Your task to perform on an android device: Open privacy settings Image 0: 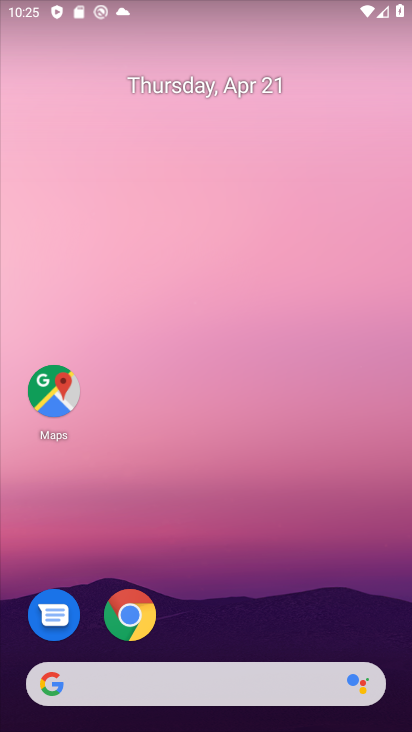
Step 0: drag from (226, 627) to (243, 132)
Your task to perform on an android device: Open privacy settings Image 1: 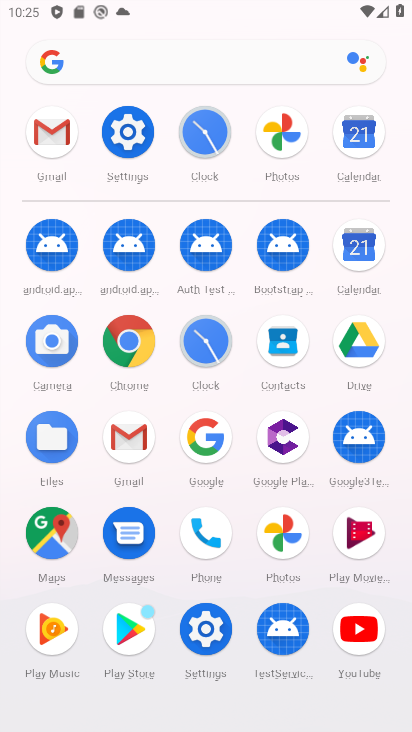
Step 1: click (207, 627)
Your task to perform on an android device: Open privacy settings Image 2: 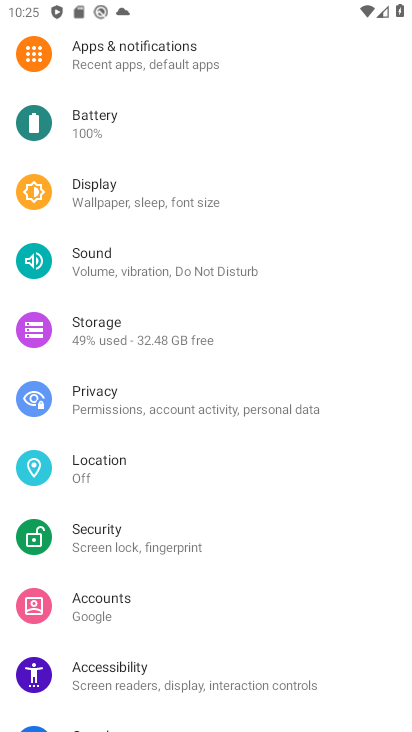
Step 2: click (130, 386)
Your task to perform on an android device: Open privacy settings Image 3: 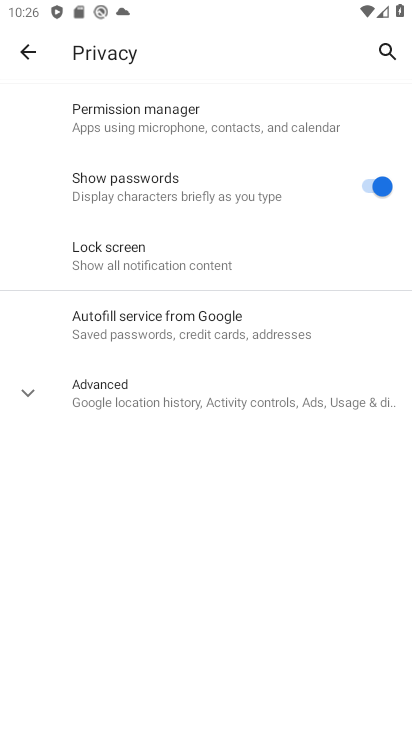
Step 3: click (36, 386)
Your task to perform on an android device: Open privacy settings Image 4: 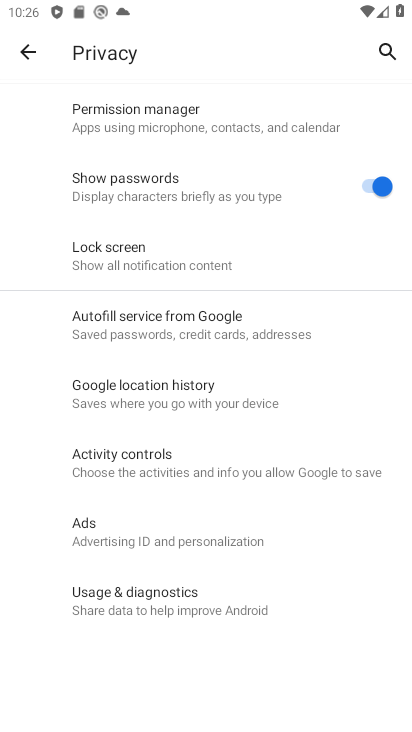
Step 4: task complete